Your task to perform on an android device: Go to notification settings Image 0: 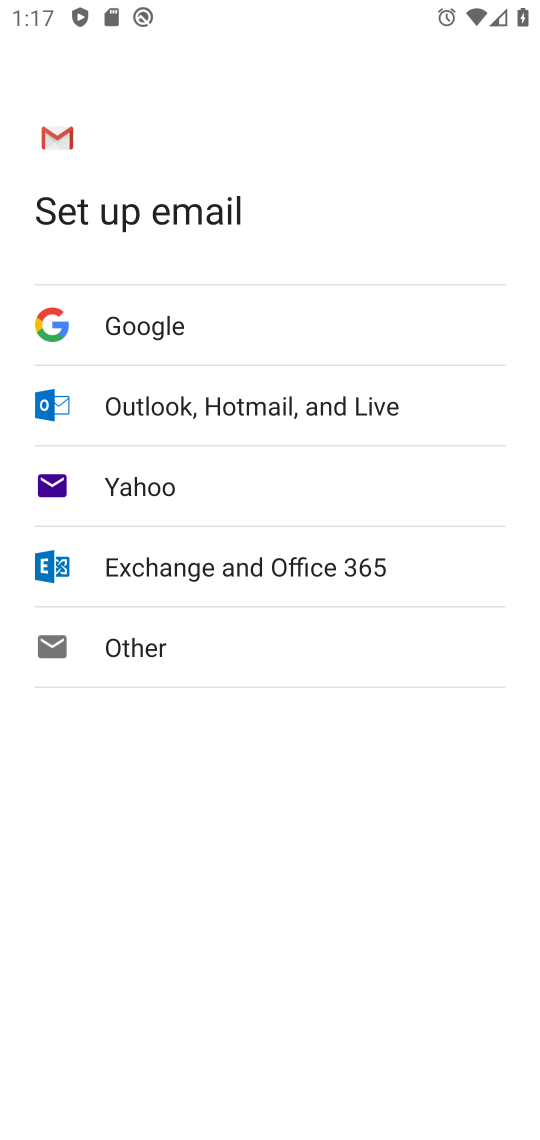
Step 0: press home button
Your task to perform on an android device: Go to notification settings Image 1: 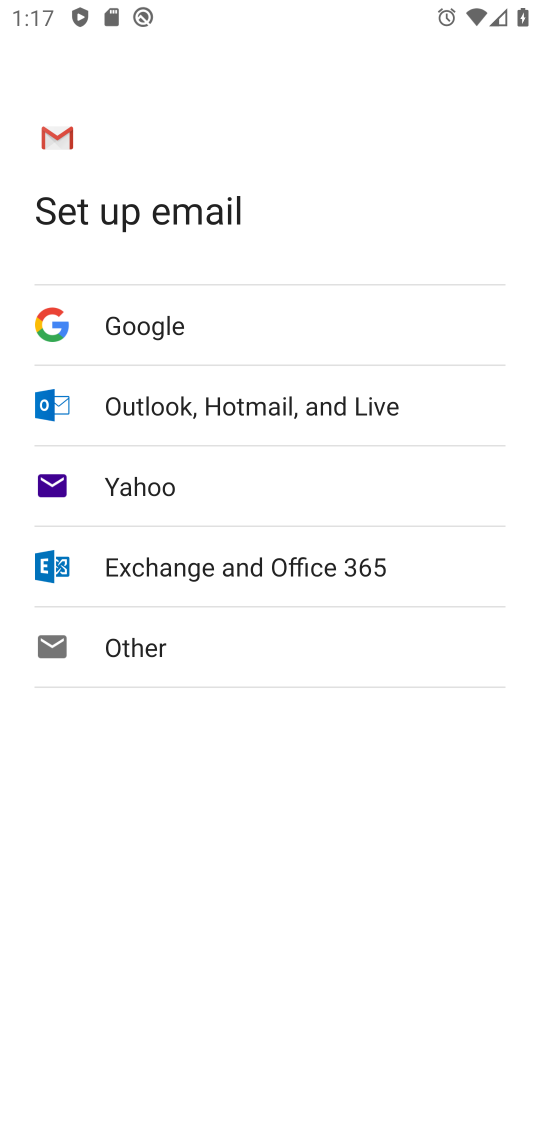
Step 1: drag from (280, 646) to (363, 95)
Your task to perform on an android device: Go to notification settings Image 2: 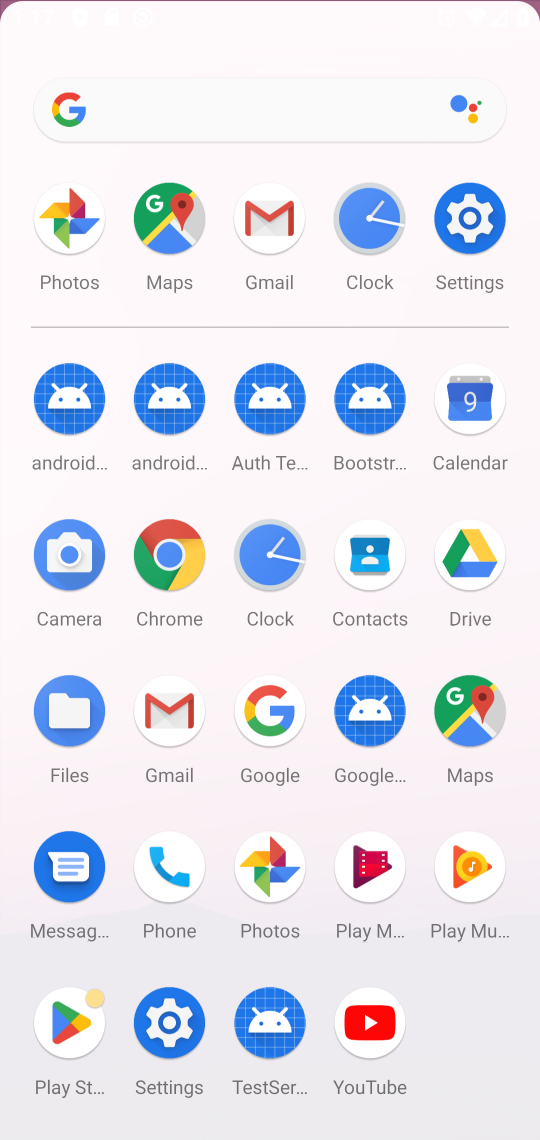
Step 2: drag from (298, 932) to (450, 36)
Your task to perform on an android device: Go to notification settings Image 3: 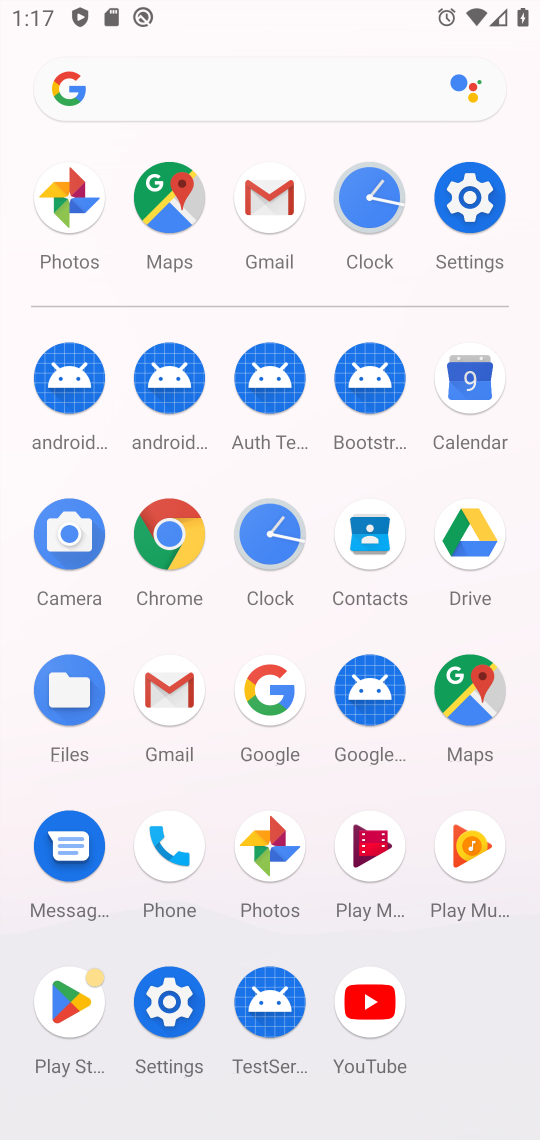
Step 3: click (162, 992)
Your task to perform on an android device: Go to notification settings Image 4: 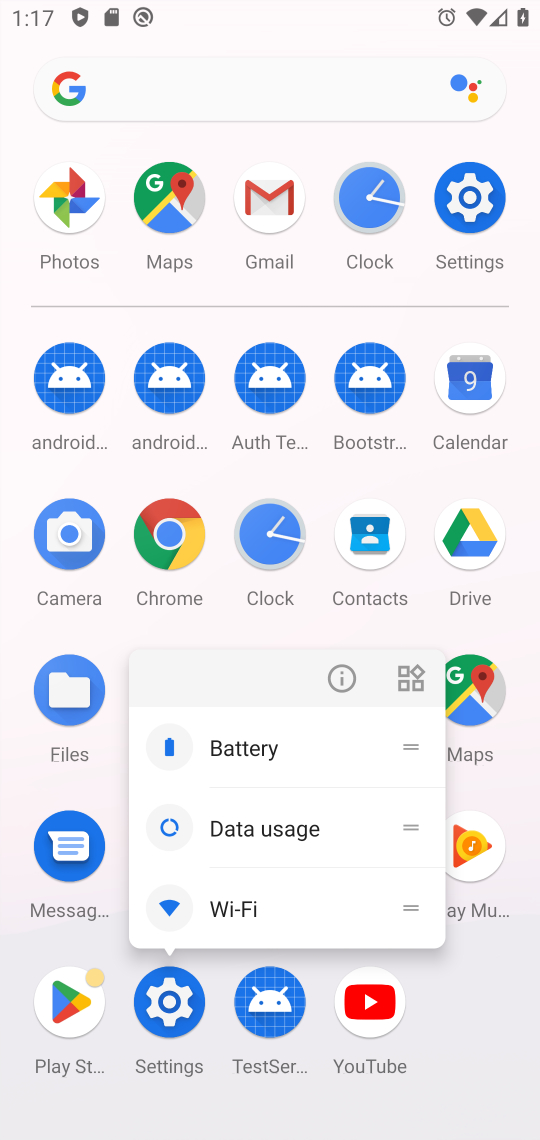
Step 4: click (344, 671)
Your task to perform on an android device: Go to notification settings Image 5: 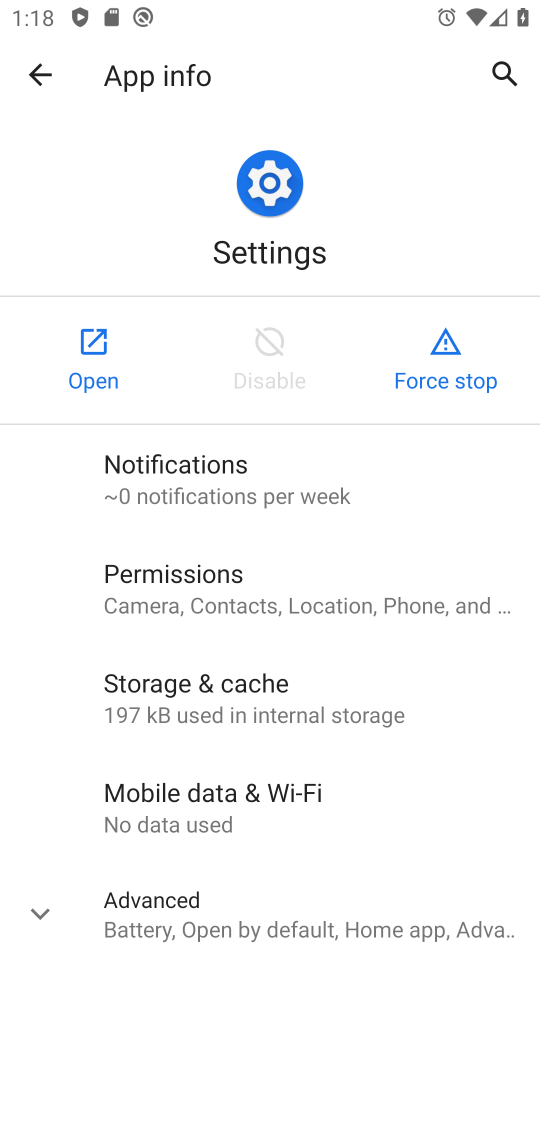
Step 5: click (88, 328)
Your task to perform on an android device: Go to notification settings Image 6: 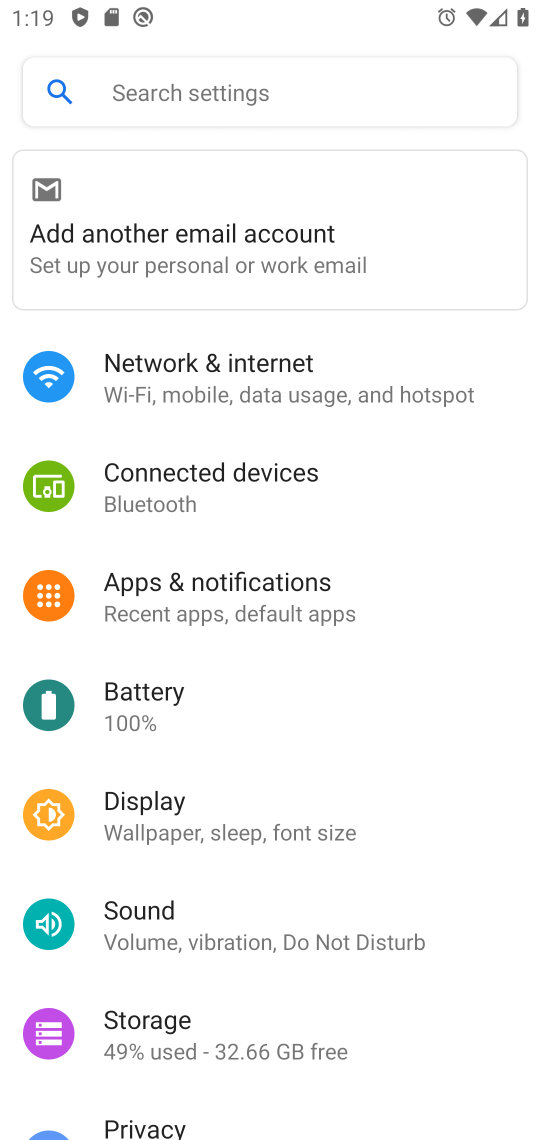
Step 6: click (183, 607)
Your task to perform on an android device: Go to notification settings Image 7: 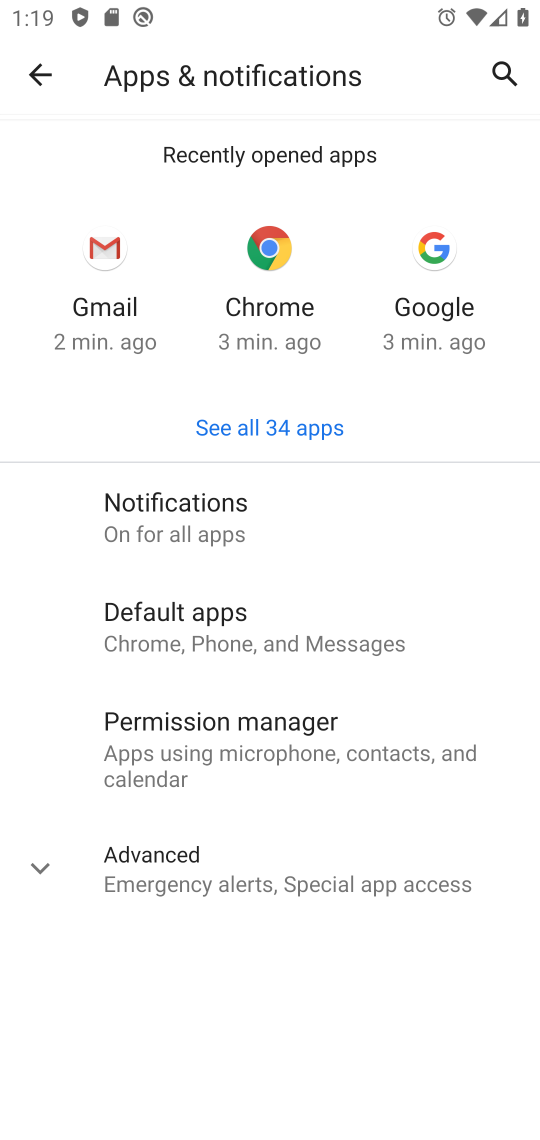
Step 7: drag from (261, 940) to (257, 698)
Your task to perform on an android device: Go to notification settings Image 8: 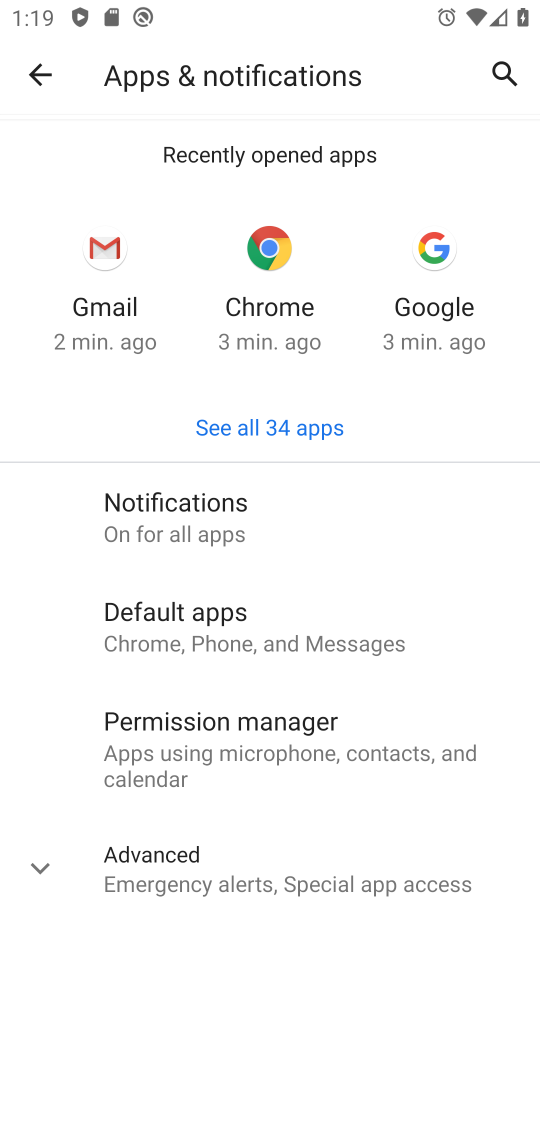
Step 8: click (235, 519)
Your task to perform on an android device: Go to notification settings Image 9: 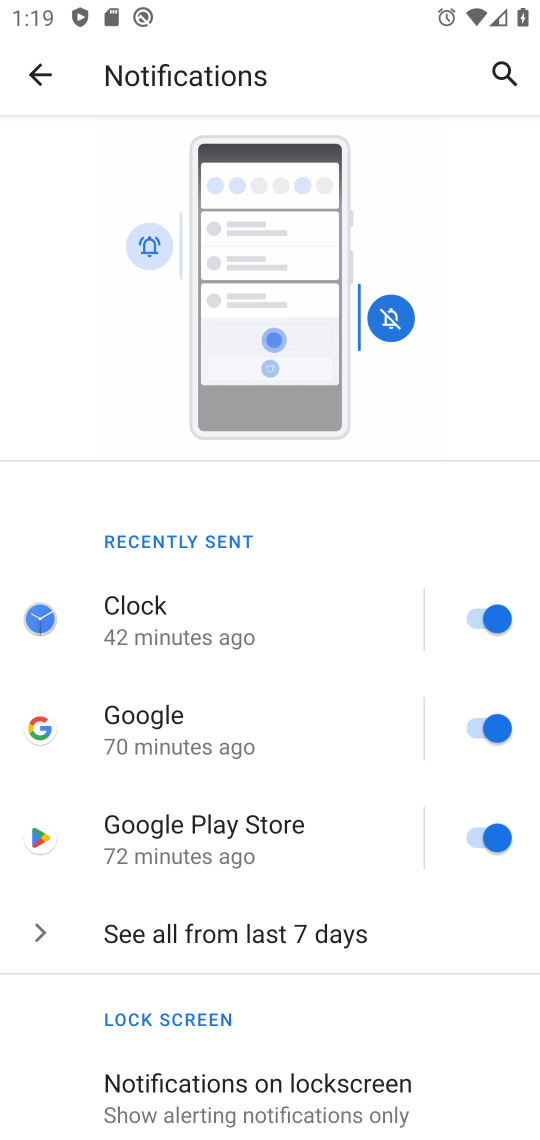
Step 9: drag from (265, 1002) to (272, 768)
Your task to perform on an android device: Go to notification settings Image 10: 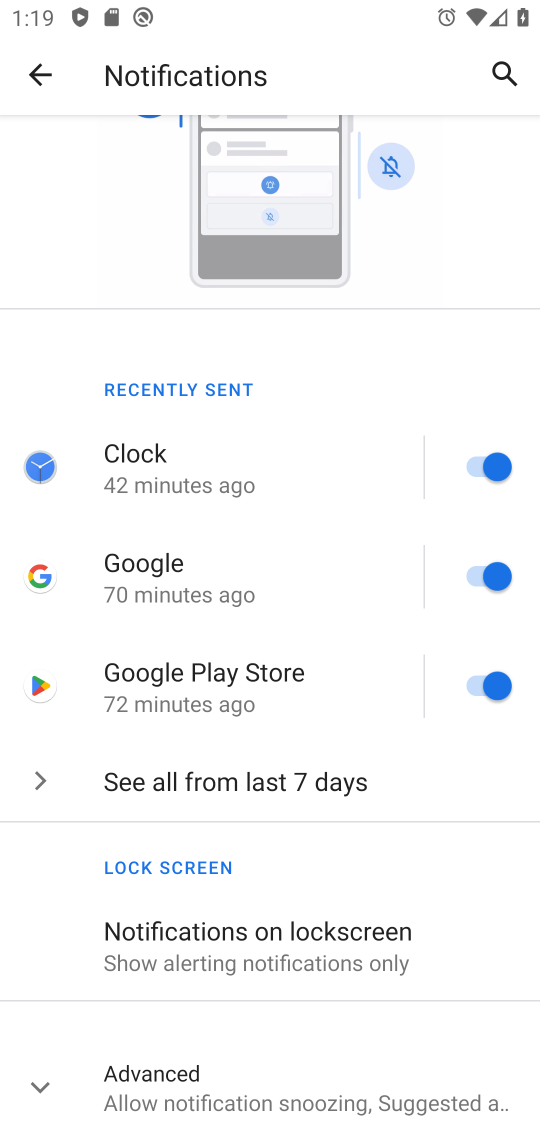
Step 10: drag from (279, 968) to (380, 519)
Your task to perform on an android device: Go to notification settings Image 11: 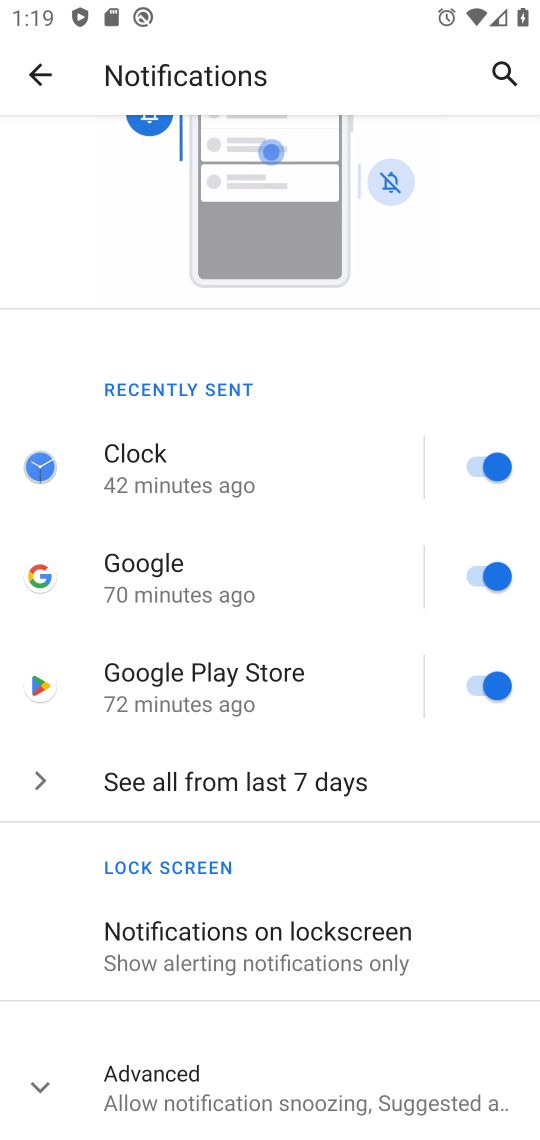
Step 11: drag from (206, 1043) to (218, 562)
Your task to perform on an android device: Go to notification settings Image 12: 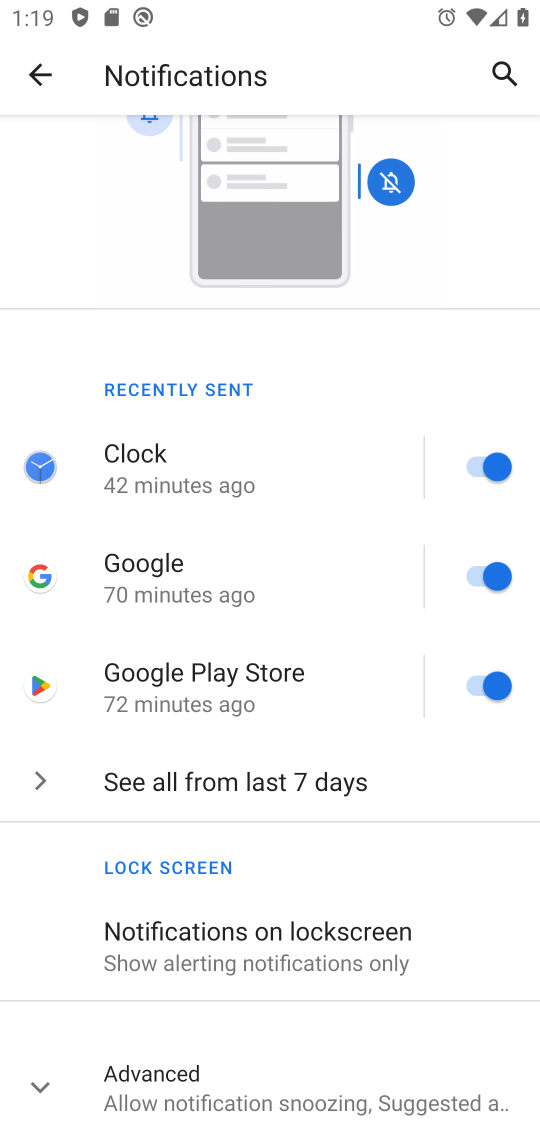
Step 12: drag from (214, 1084) to (310, 296)
Your task to perform on an android device: Go to notification settings Image 13: 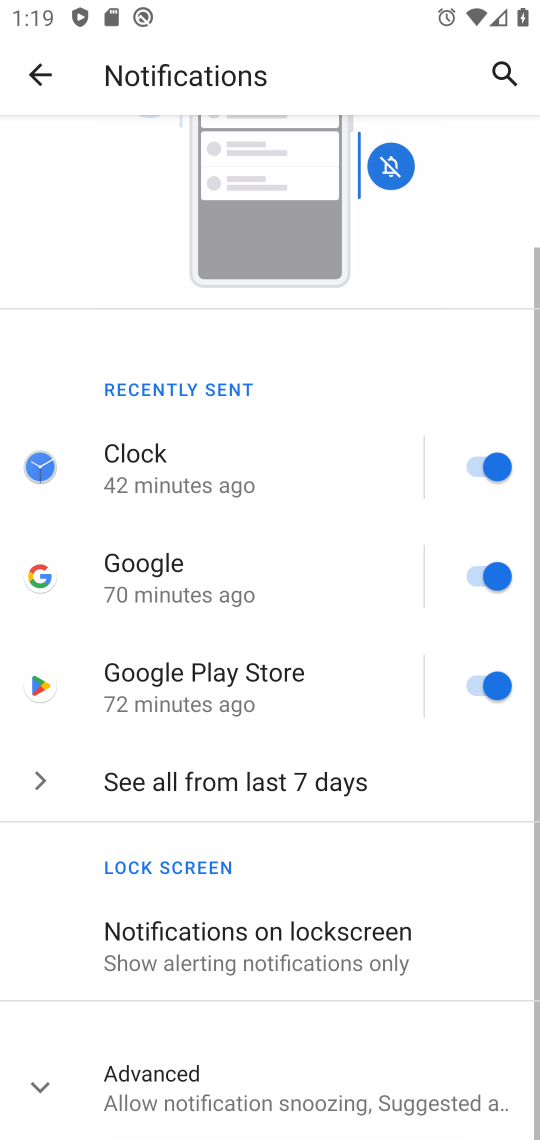
Step 13: drag from (192, 952) to (267, 351)
Your task to perform on an android device: Go to notification settings Image 14: 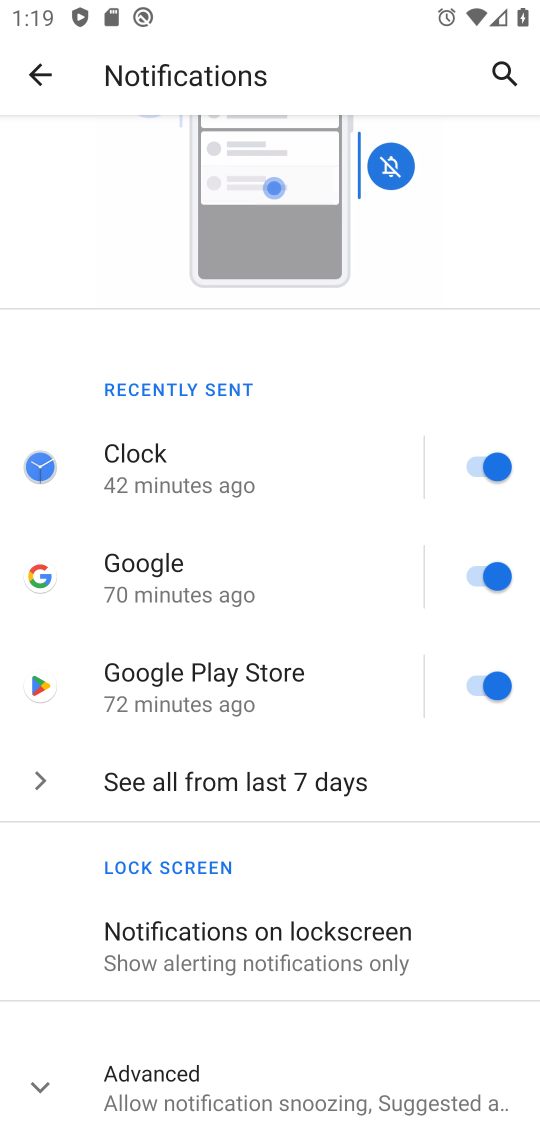
Step 14: click (226, 1075)
Your task to perform on an android device: Go to notification settings Image 15: 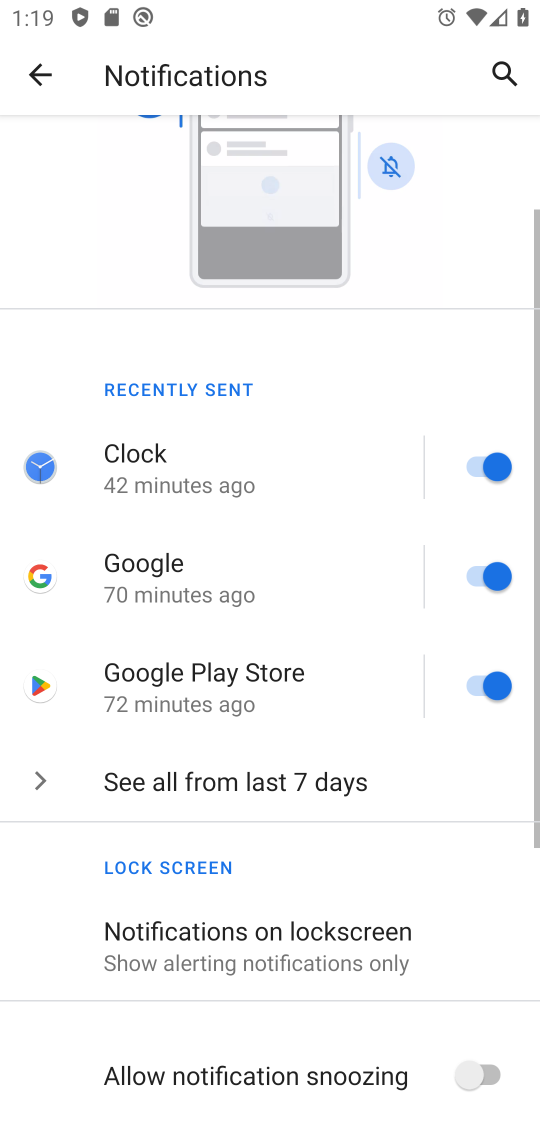
Step 15: drag from (243, 996) to (301, 394)
Your task to perform on an android device: Go to notification settings Image 16: 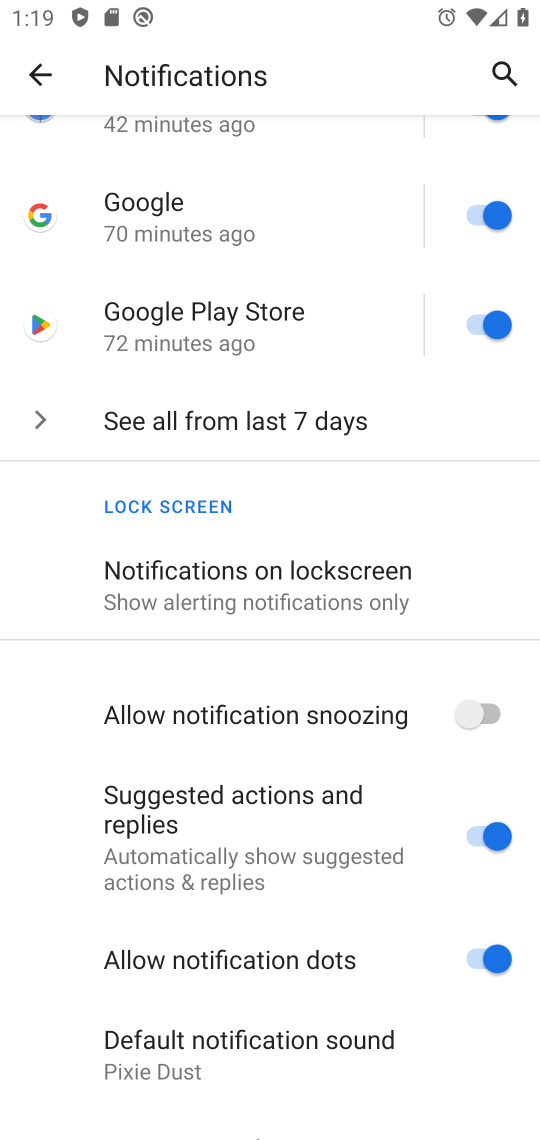
Step 16: drag from (219, 989) to (235, 245)
Your task to perform on an android device: Go to notification settings Image 17: 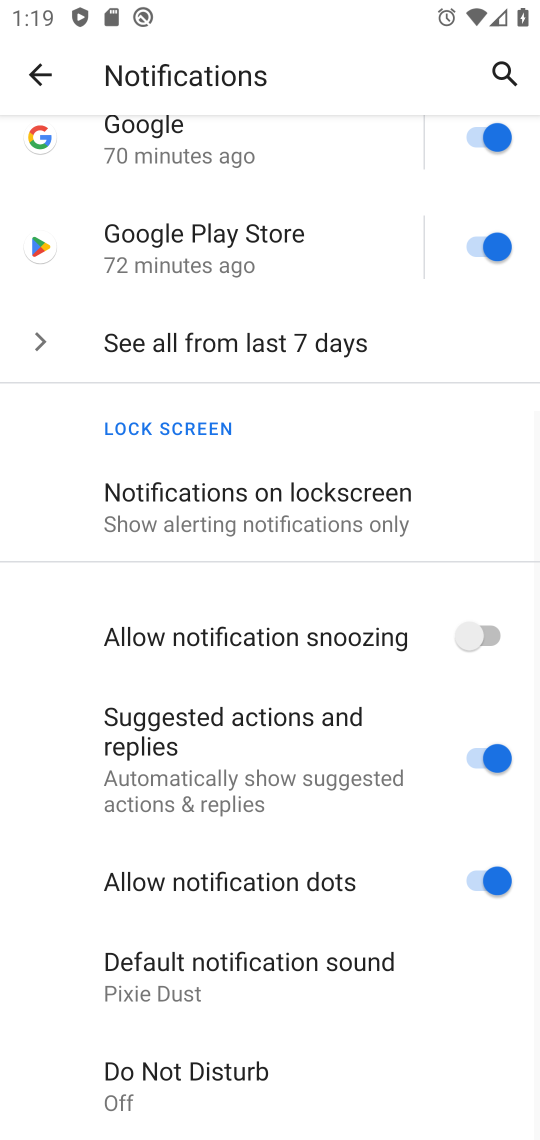
Step 17: drag from (280, 468) to (351, 1127)
Your task to perform on an android device: Go to notification settings Image 18: 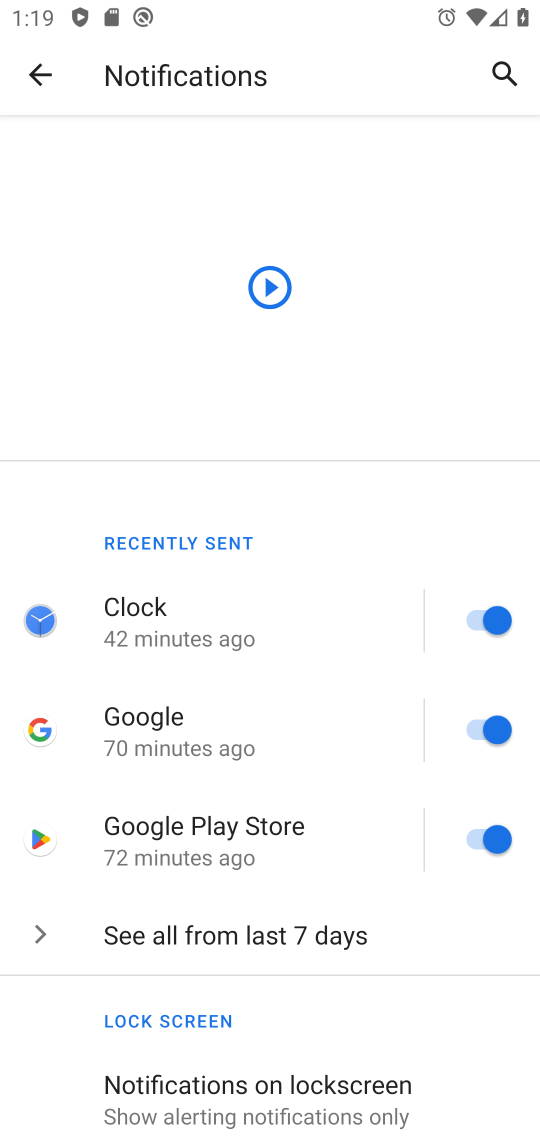
Step 18: drag from (273, 387) to (397, 1024)
Your task to perform on an android device: Go to notification settings Image 19: 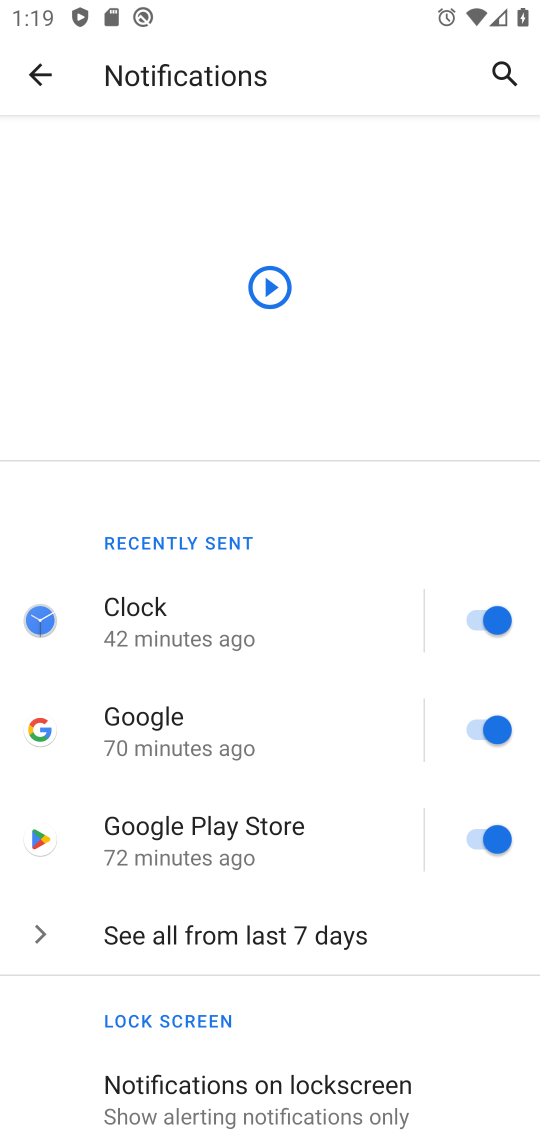
Step 19: drag from (276, 1008) to (294, 517)
Your task to perform on an android device: Go to notification settings Image 20: 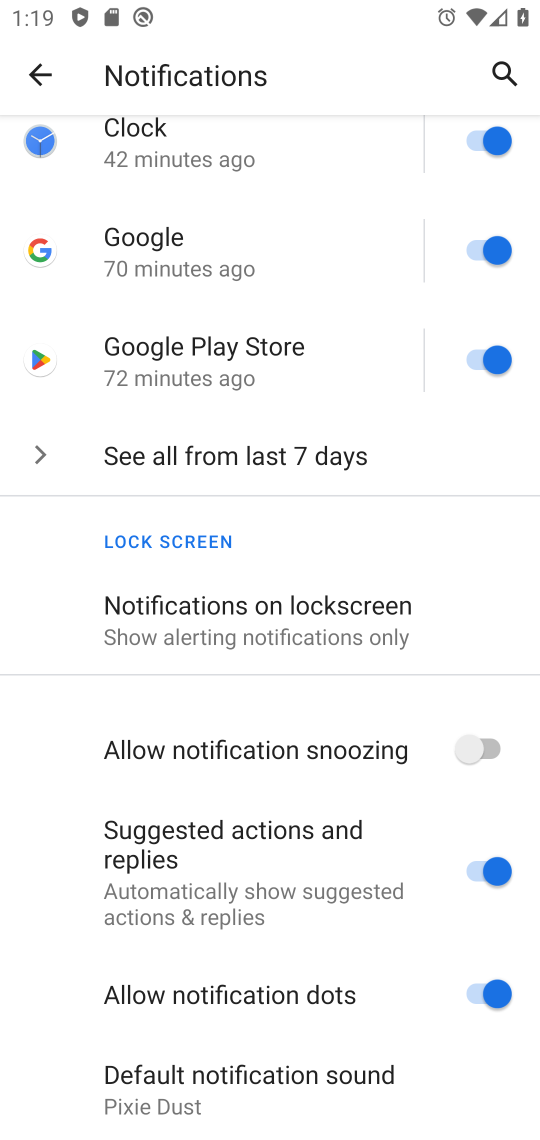
Step 20: drag from (278, 358) to (355, 1137)
Your task to perform on an android device: Go to notification settings Image 21: 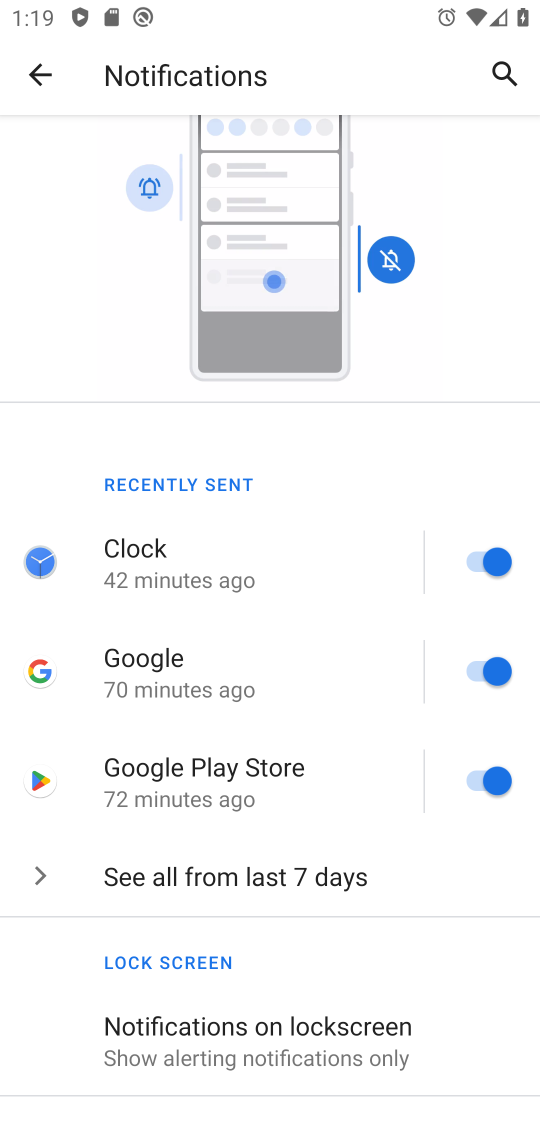
Step 21: drag from (283, 650) to (308, 384)
Your task to perform on an android device: Go to notification settings Image 22: 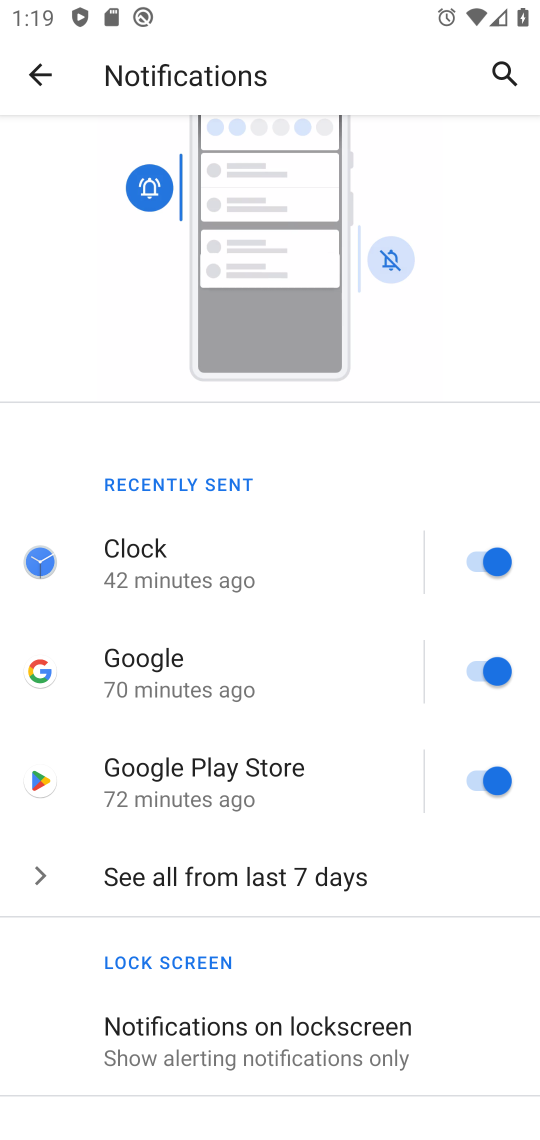
Step 22: drag from (285, 980) to (350, 380)
Your task to perform on an android device: Go to notification settings Image 23: 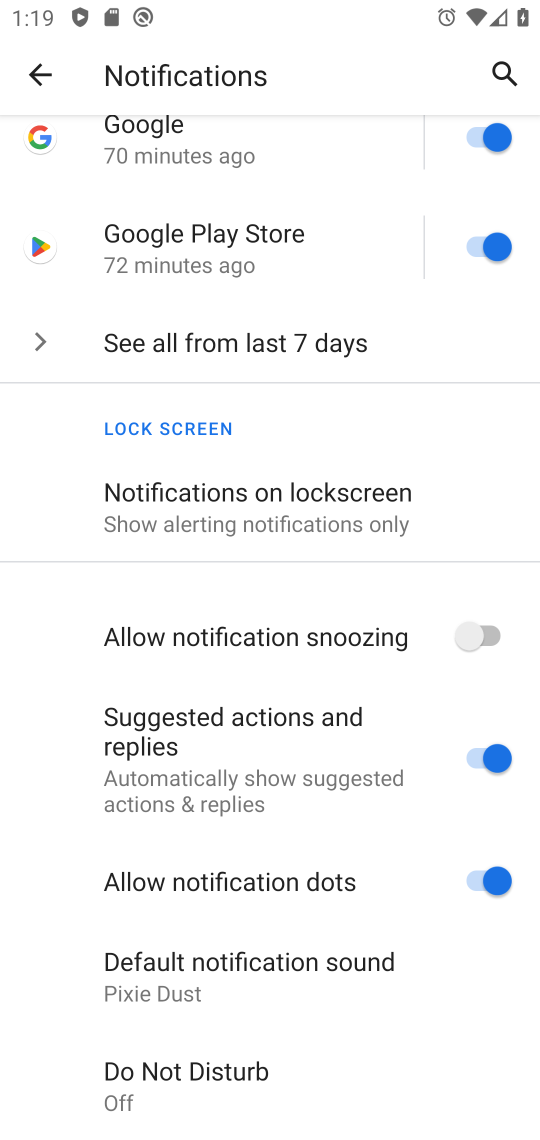
Step 23: drag from (270, 988) to (325, 389)
Your task to perform on an android device: Go to notification settings Image 24: 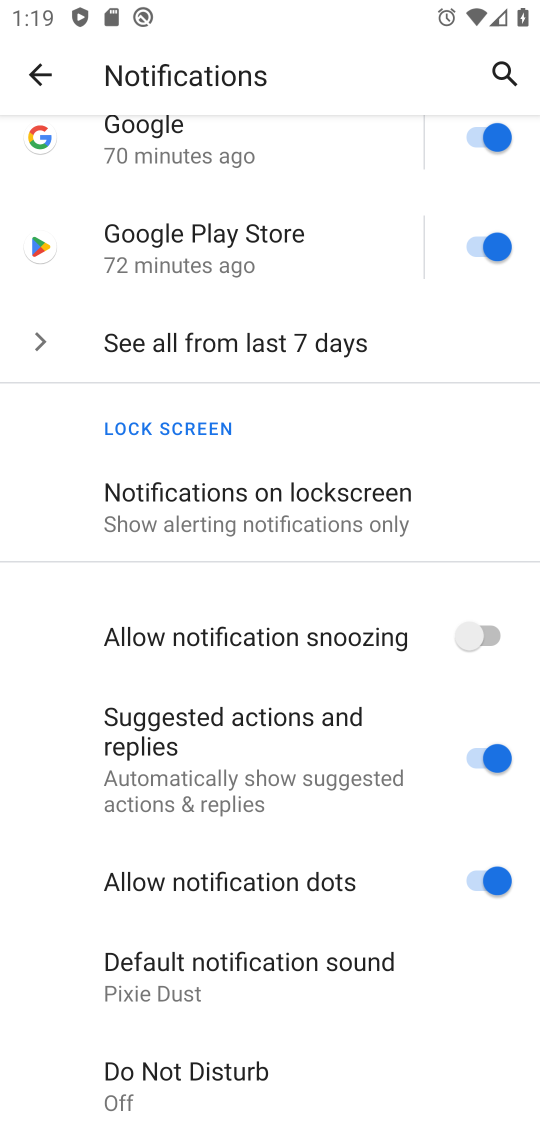
Step 24: drag from (302, 624) to (342, 369)
Your task to perform on an android device: Go to notification settings Image 25: 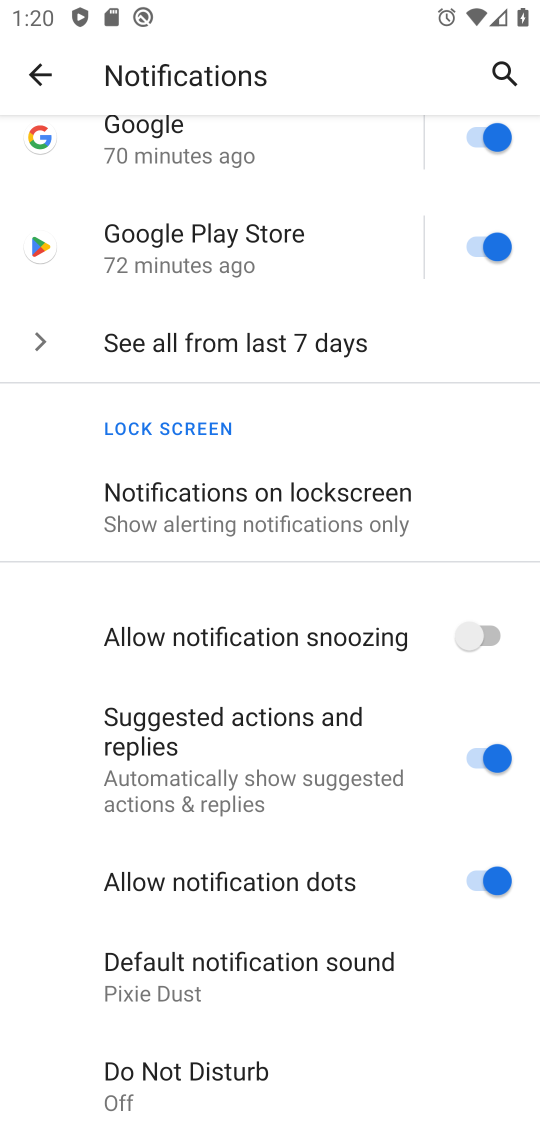
Step 25: drag from (306, 596) to (315, 333)
Your task to perform on an android device: Go to notification settings Image 26: 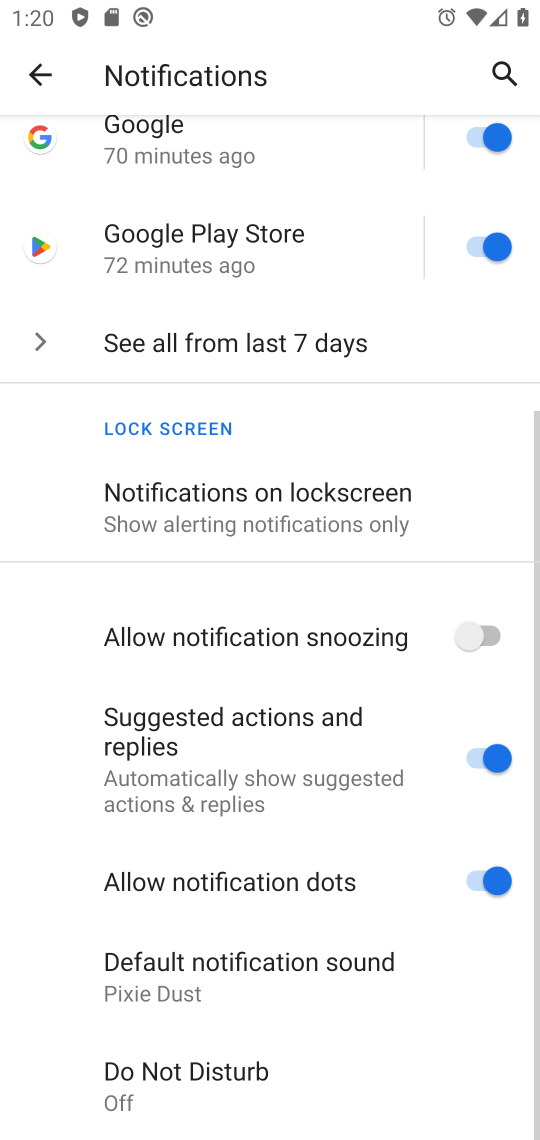
Step 26: drag from (333, 930) to (439, 1125)
Your task to perform on an android device: Go to notification settings Image 27: 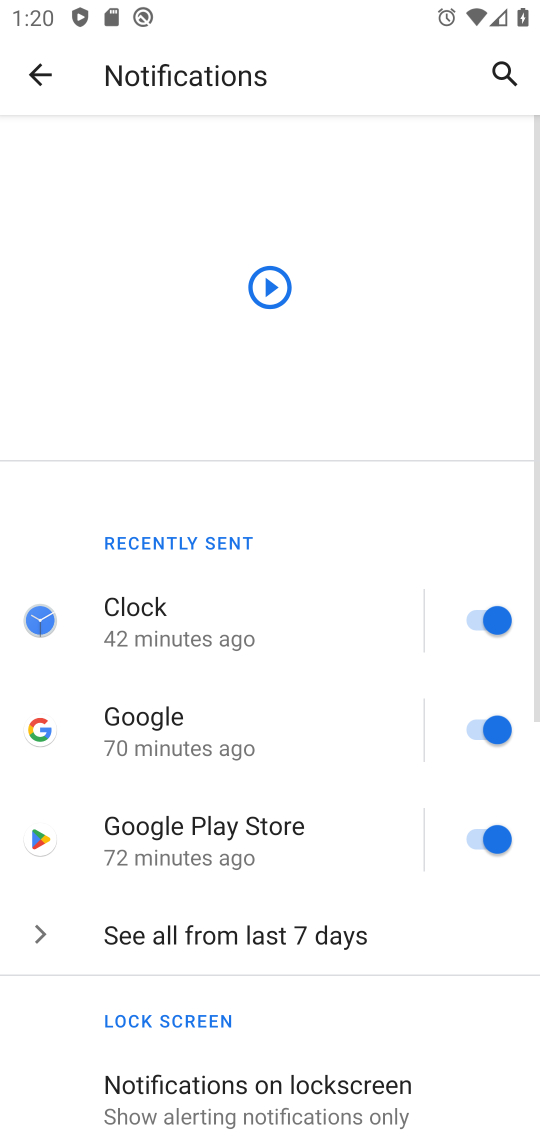
Step 27: drag from (282, 359) to (334, 1066)
Your task to perform on an android device: Go to notification settings Image 28: 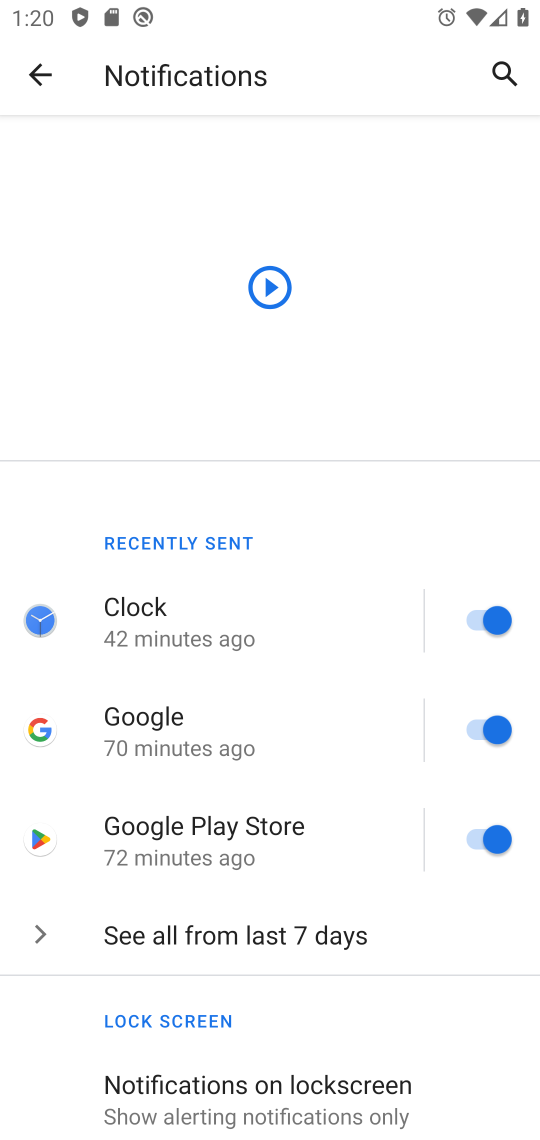
Step 28: click (312, 340)
Your task to perform on an android device: Go to notification settings Image 29: 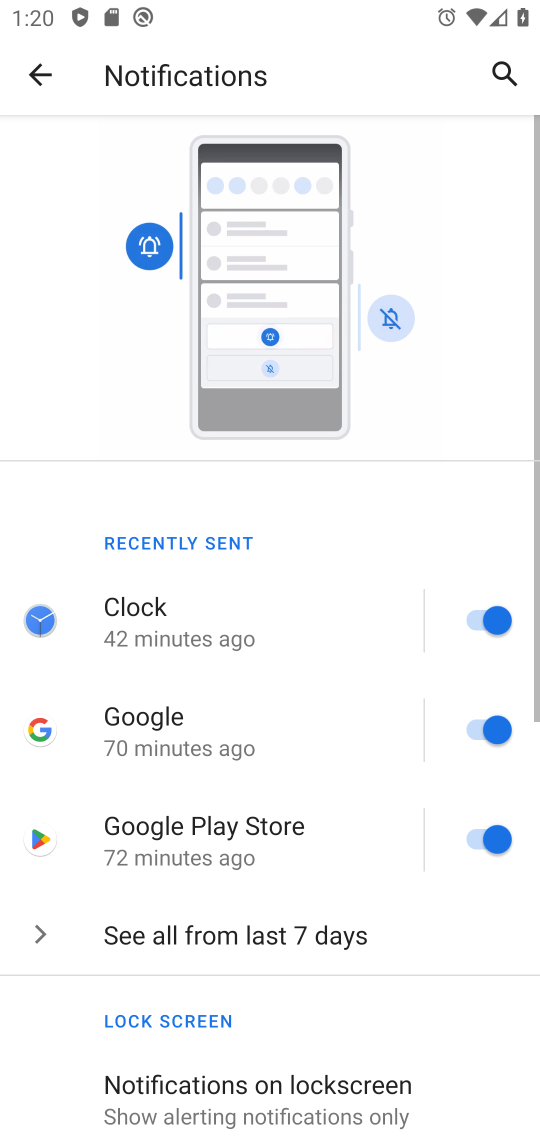
Step 29: task complete